Your task to perform on an android device: allow cookies in the chrome app Image 0: 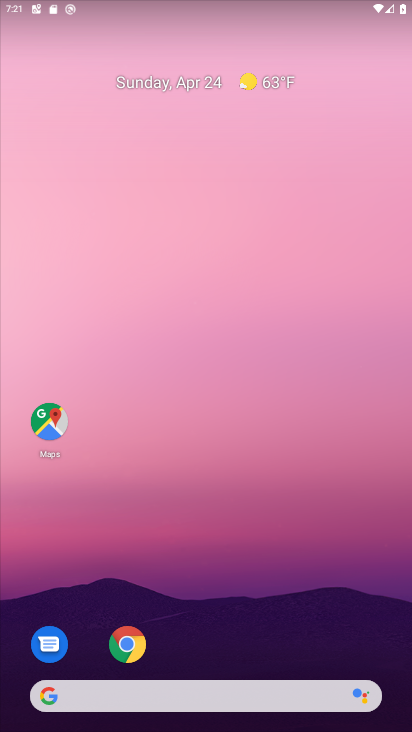
Step 0: press home button
Your task to perform on an android device: allow cookies in the chrome app Image 1: 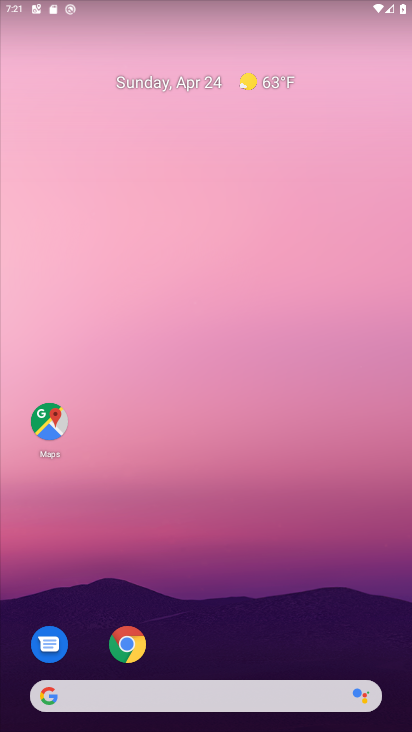
Step 1: click (124, 641)
Your task to perform on an android device: allow cookies in the chrome app Image 2: 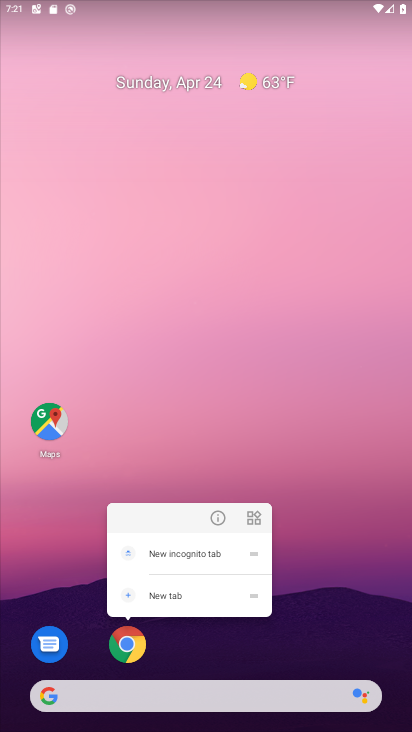
Step 2: click (306, 634)
Your task to perform on an android device: allow cookies in the chrome app Image 3: 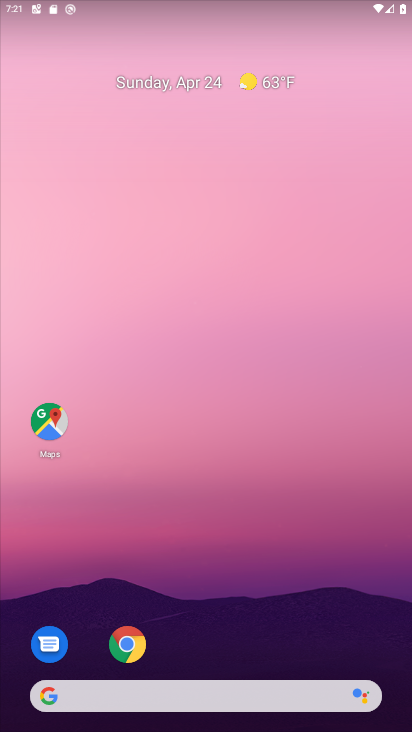
Step 3: drag from (303, 634) to (276, 178)
Your task to perform on an android device: allow cookies in the chrome app Image 4: 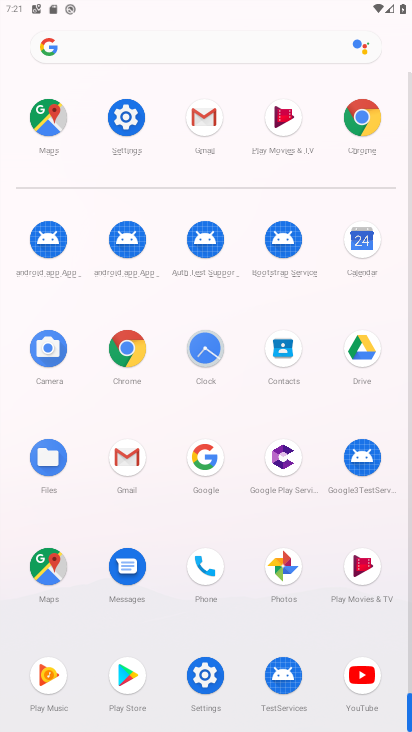
Step 4: click (127, 345)
Your task to perform on an android device: allow cookies in the chrome app Image 5: 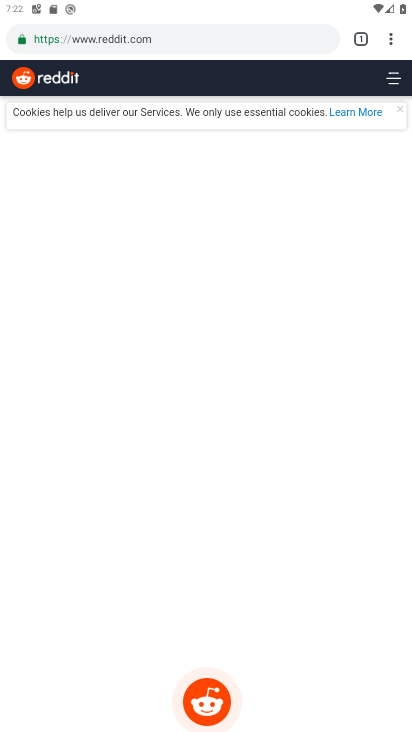
Step 5: click (391, 37)
Your task to perform on an android device: allow cookies in the chrome app Image 6: 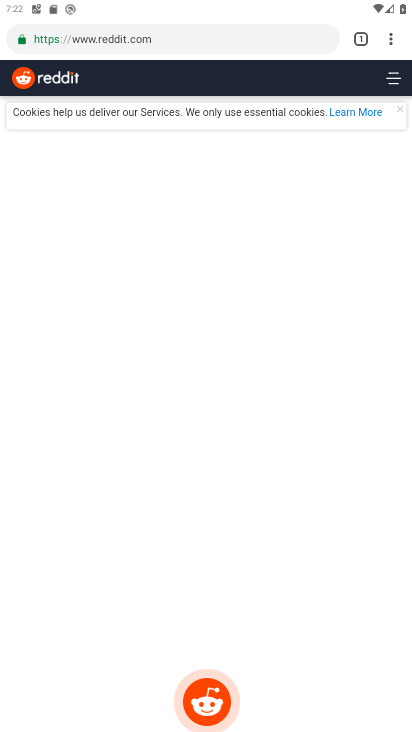
Step 6: click (388, 35)
Your task to perform on an android device: allow cookies in the chrome app Image 7: 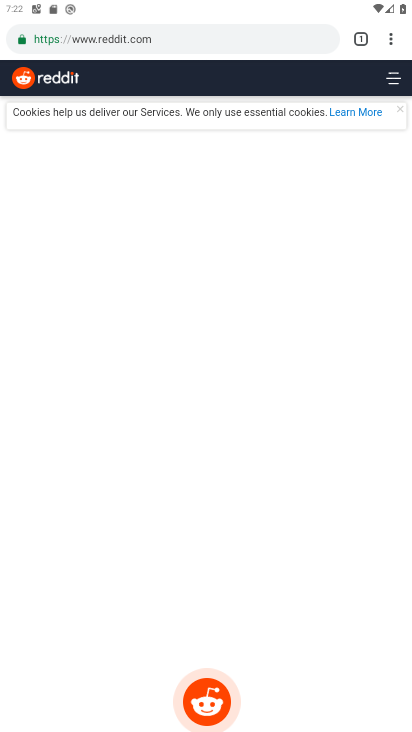
Step 7: click (388, 35)
Your task to perform on an android device: allow cookies in the chrome app Image 8: 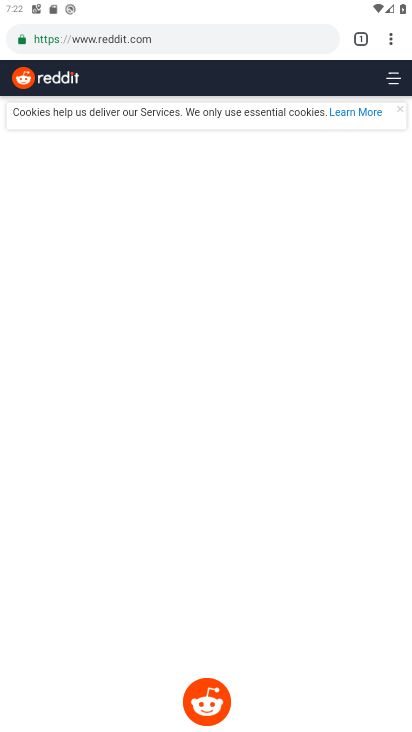
Step 8: press back button
Your task to perform on an android device: allow cookies in the chrome app Image 9: 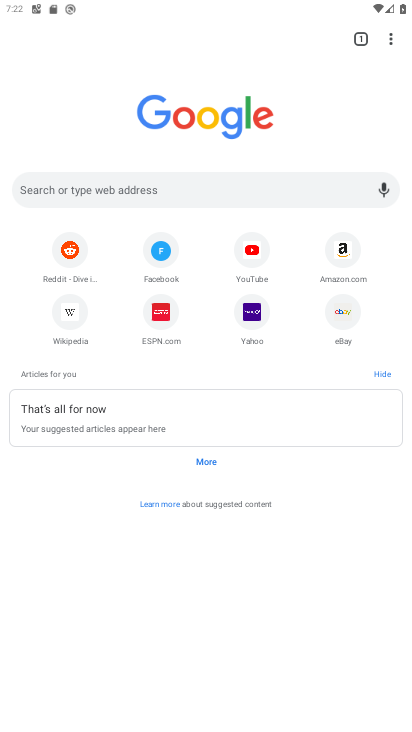
Step 9: click (396, 39)
Your task to perform on an android device: allow cookies in the chrome app Image 10: 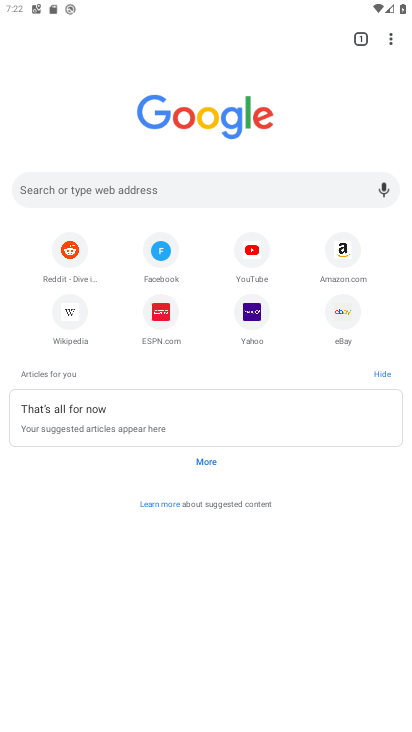
Step 10: click (392, 36)
Your task to perform on an android device: allow cookies in the chrome app Image 11: 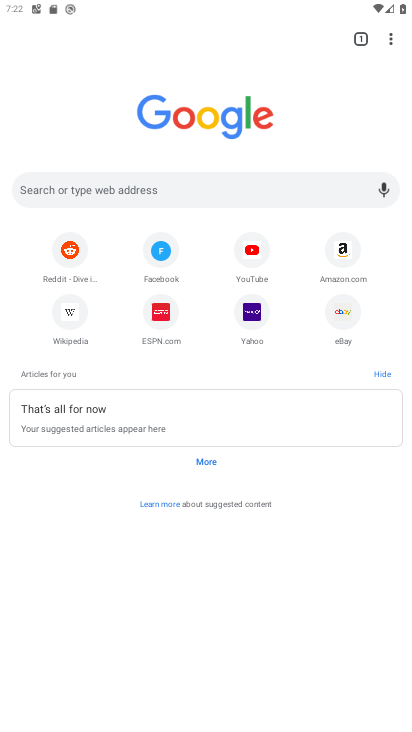
Step 11: click (392, 36)
Your task to perform on an android device: allow cookies in the chrome app Image 12: 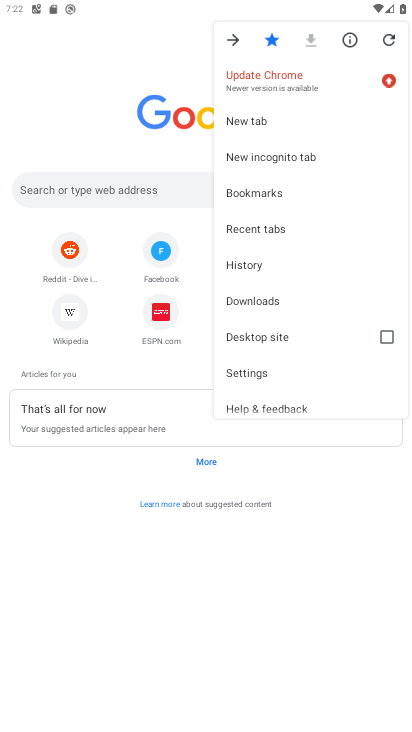
Step 12: click (285, 375)
Your task to perform on an android device: allow cookies in the chrome app Image 13: 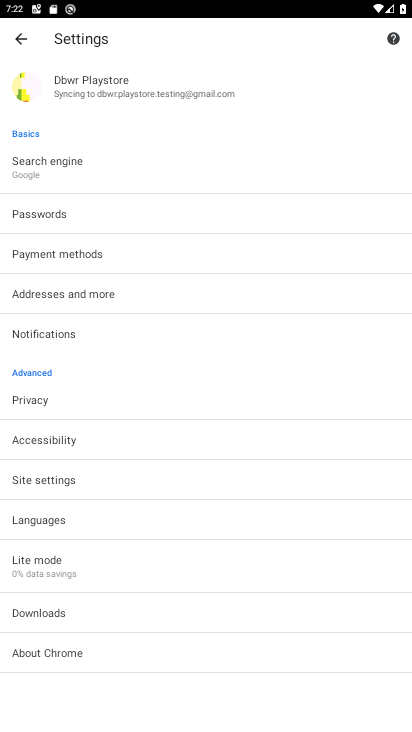
Step 13: click (94, 479)
Your task to perform on an android device: allow cookies in the chrome app Image 14: 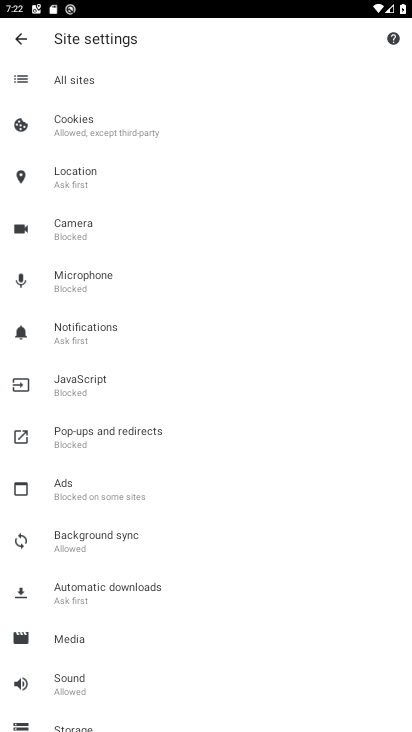
Step 14: click (112, 121)
Your task to perform on an android device: allow cookies in the chrome app Image 15: 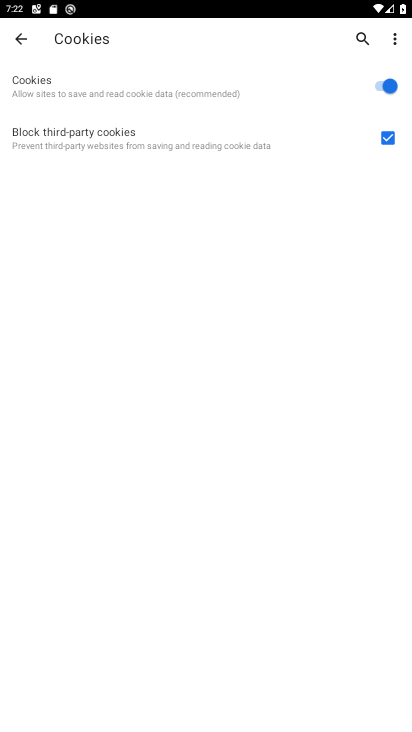
Step 15: task complete